Your task to perform on an android device: change the clock style Image 0: 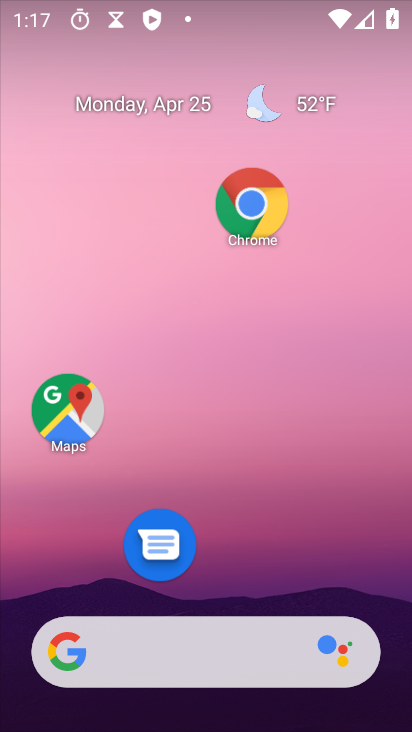
Step 0: drag from (284, 666) to (235, 223)
Your task to perform on an android device: change the clock style Image 1: 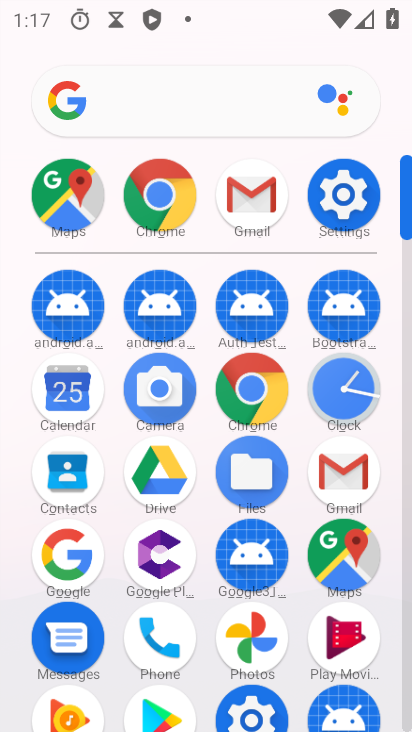
Step 1: click (346, 375)
Your task to perform on an android device: change the clock style Image 2: 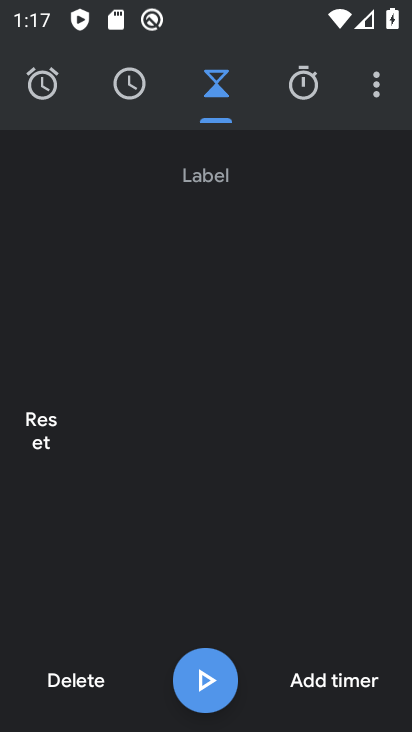
Step 2: click (371, 84)
Your task to perform on an android device: change the clock style Image 3: 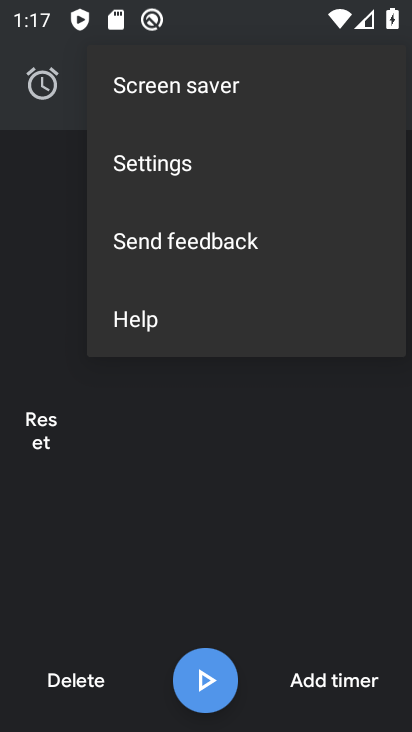
Step 3: click (204, 182)
Your task to perform on an android device: change the clock style Image 4: 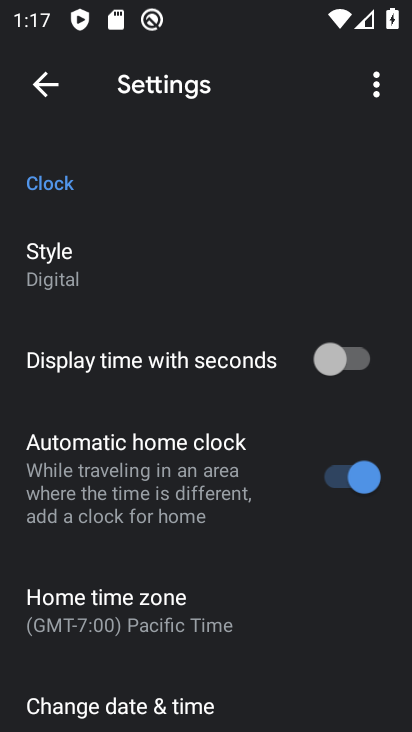
Step 4: drag from (216, 554) to (253, 328)
Your task to perform on an android device: change the clock style Image 5: 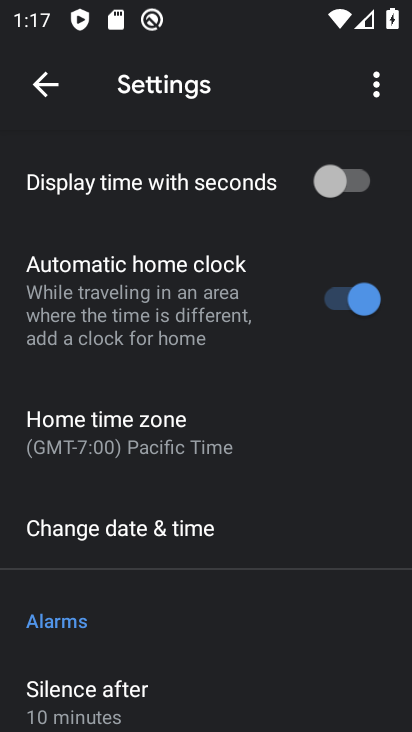
Step 5: drag from (209, 286) to (122, 628)
Your task to perform on an android device: change the clock style Image 6: 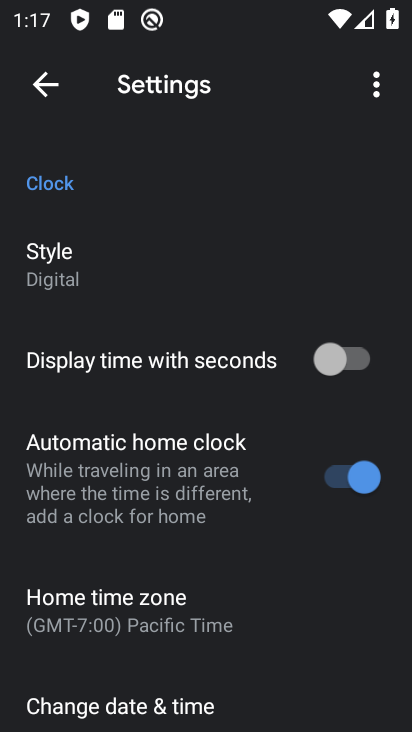
Step 6: click (126, 281)
Your task to perform on an android device: change the clock style Image 7: 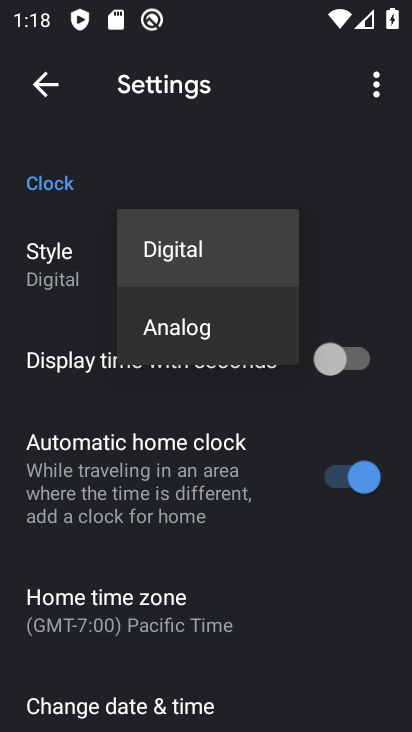
Step 7: click (197, 334)
Your task to perform on an android device: change the clock style Image 8: 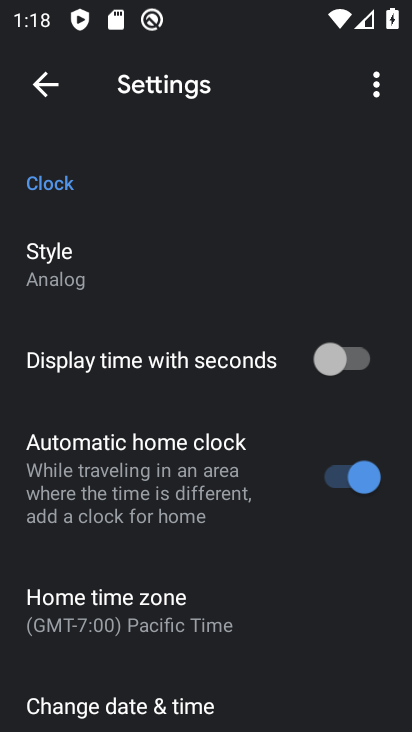
Step 8: task complete